Your task to perform on an android device: toggle improve location accuracy Image 0: 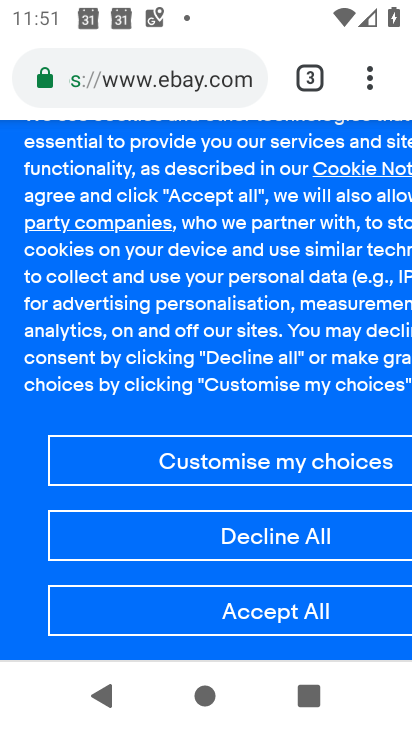
Step 0: press home button
Your task to perform on an android device: toggle improve location accuracy Image 1: 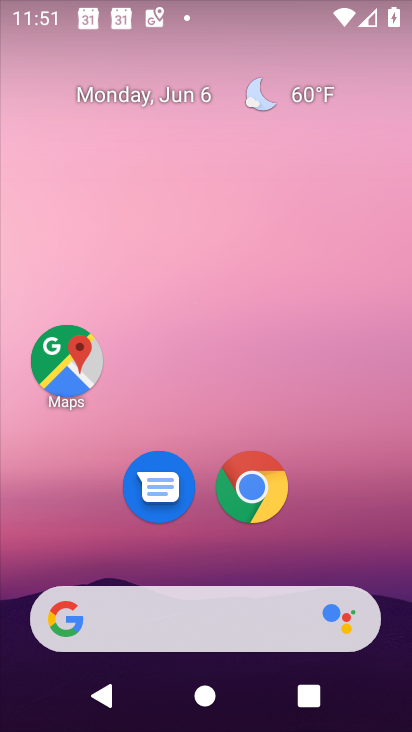
Step 1: drag from (363, 550) to (289, 268)
Your task to perform on an android device: toggle improve location accuracy Image 2: 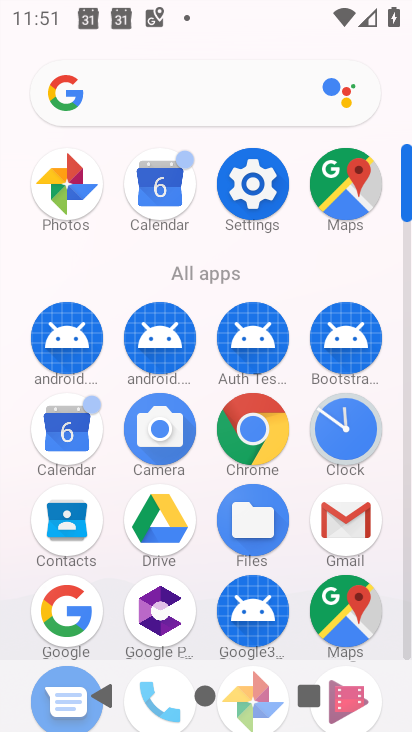
Step 2: click (255, 191)
Your task to perform on an android device: toggle improve location accuracy Image 3: 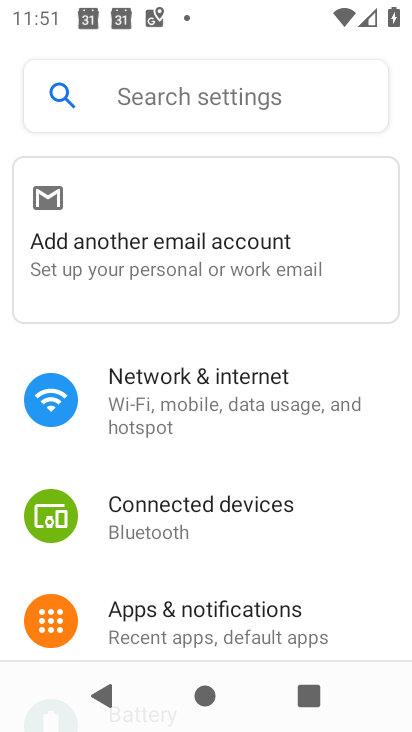
Step 3: drag from (239, 569) to (214, 35)
Your task to perform on an android device: toggle improve location accuracy Image 4: 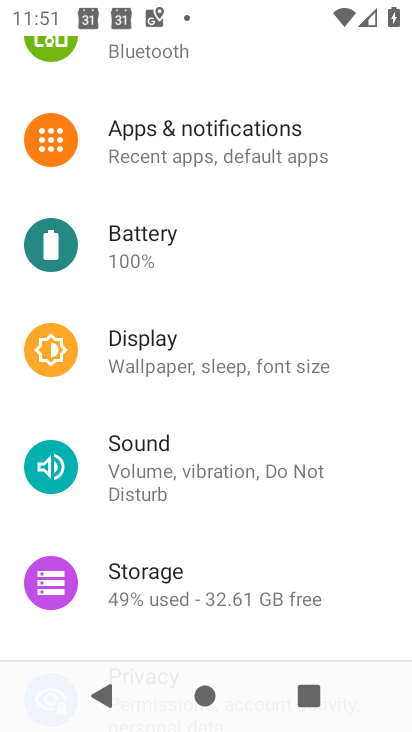
Step 4: drag from (230, 522) to (215, 22)
Your task to perform on an android device: toggle improve location accuracy Image 5: 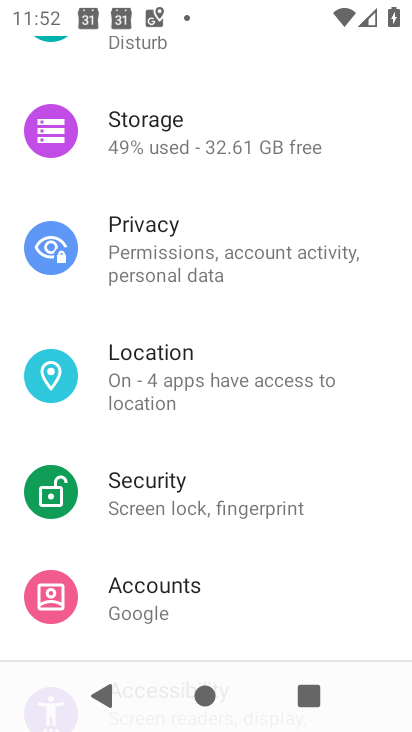
Step 5: click (227, 375)
Your task to perform on an android device: toggle improve location accuracy Image 6: 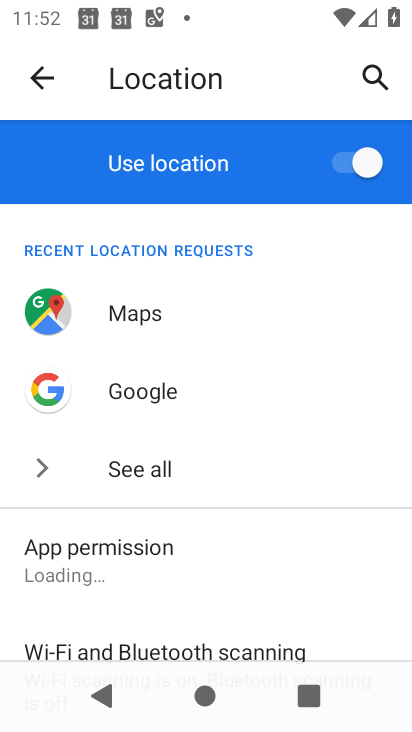
Step 6: drag from (273, 573) to (209, 34)
Your task to perform on an android device: toggle improve location accuracy Image 7: 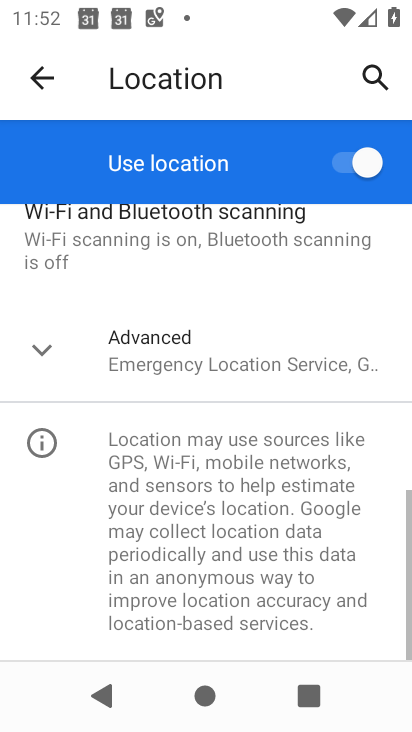
Step 7: click (263, 348)
Your task to perform on an android device: toggle improve location accuracy Image 8: 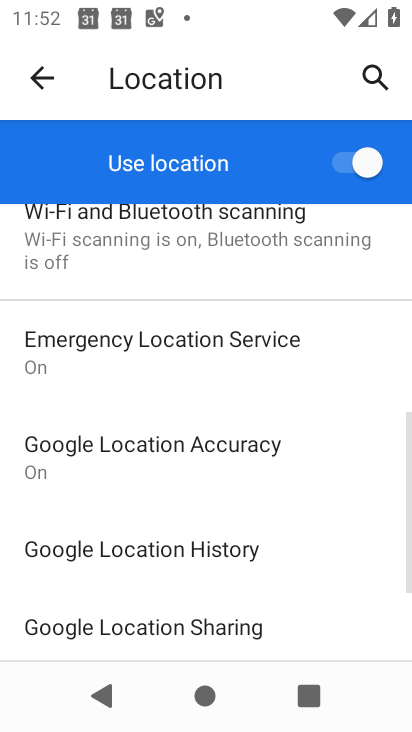
Step 8: click (303, 463)
Your task to perform on an android device: toggle improve location accuracy Image 9: 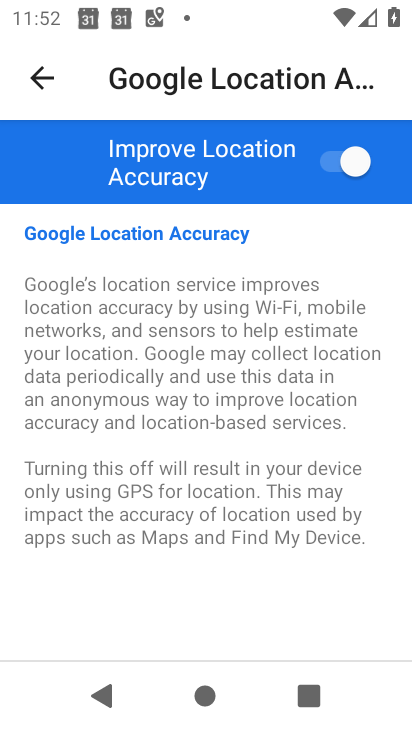
Step 9: click (357, 173)
Your task to perform on an android device: toggle improve location accuracy Image 10: 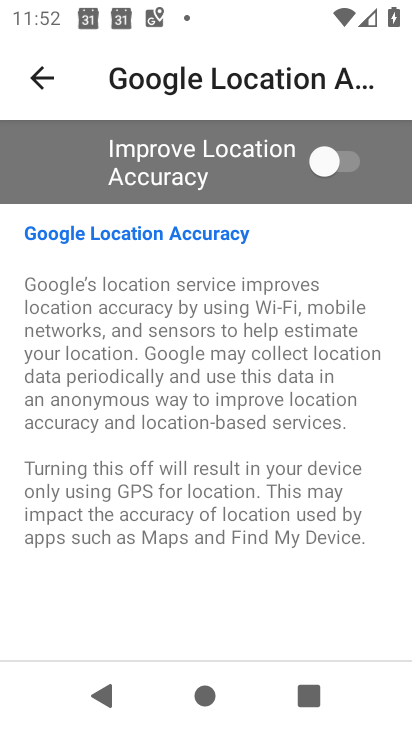
Step 10: task complete